Your task to perform on an android device: Show me productivity apps on the Play Store Image 0: 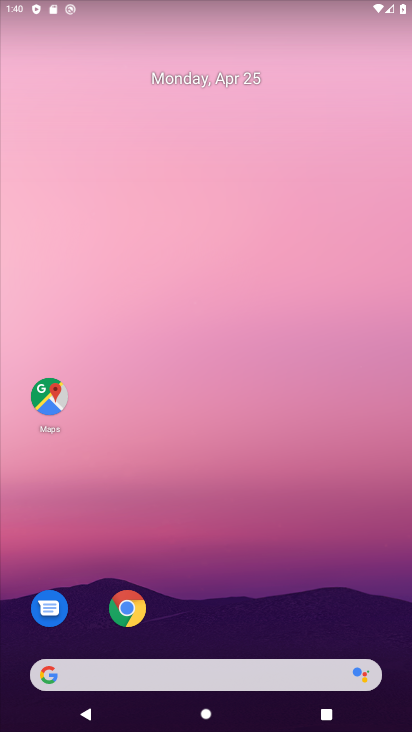
Step 0: drag from (224, 632) to (215, 108)
Your task to perform on an android device: Show me productivity apps on the Play Store Image 1: 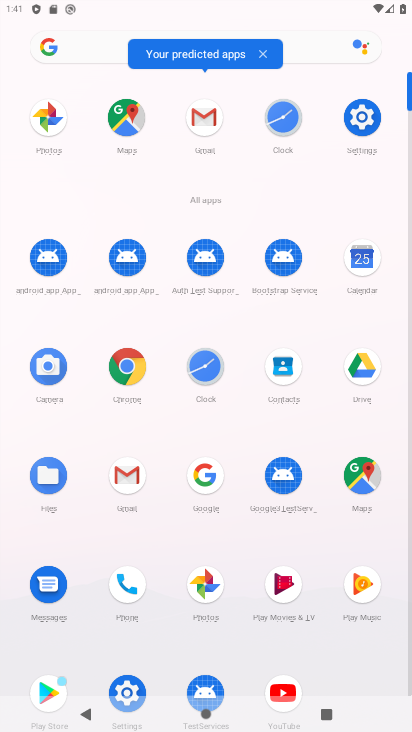
Step 1: click (51, 683)
Your task to perform on an android device: Show me productivity apps on the Play Store Image 2: 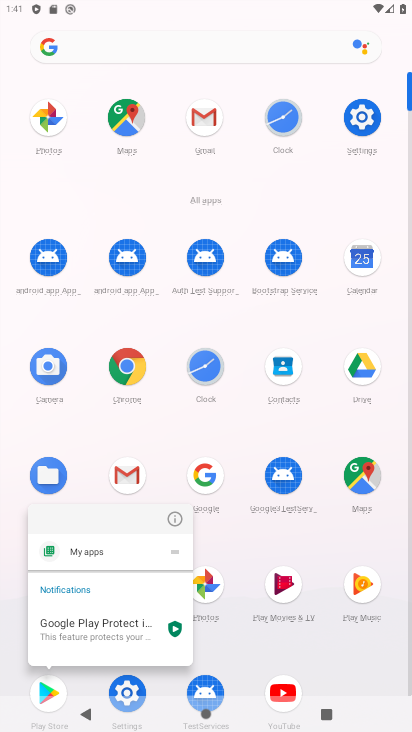
Step 2: click (162, 517)
Your task to perform on an android device: Show me productivity apps on the Play Store Image 3: 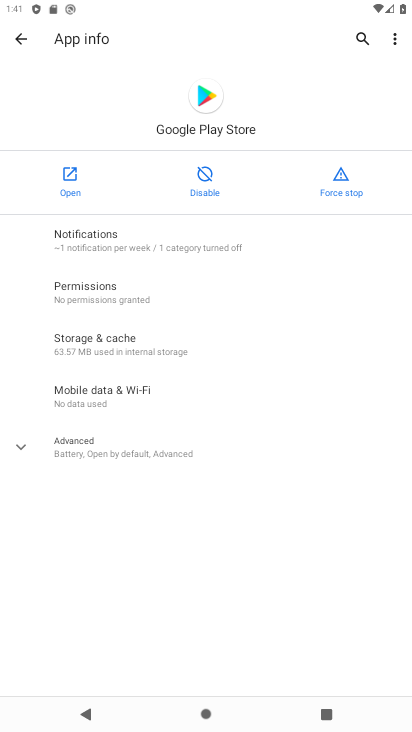
Step 3: click (81, 176)
Your task to perform on an android device: Show me productivity apps on the Play Store Image 4: 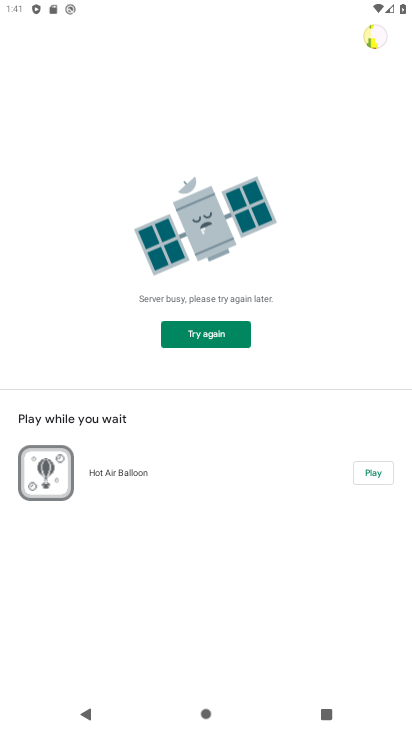
Step 4: task complete